Your task to perform on an android device: open a bookmark in the chrome app Image 0: 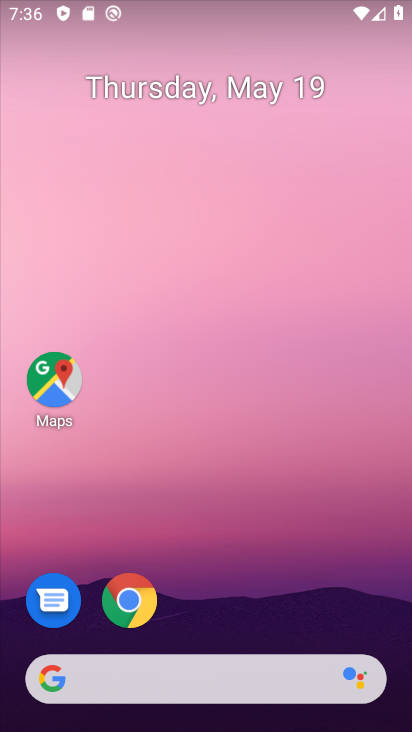
Step 0: click (140, 602)
Your task to perform on an android device: open a bookmark in the chrome app Image 1: 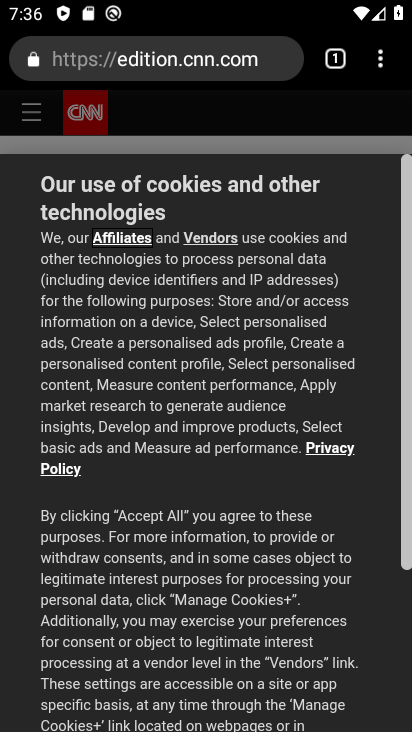
Step 1: click (381, 63)
Your task to perform on an android device: open a bookmark in the chrome app Image 2: 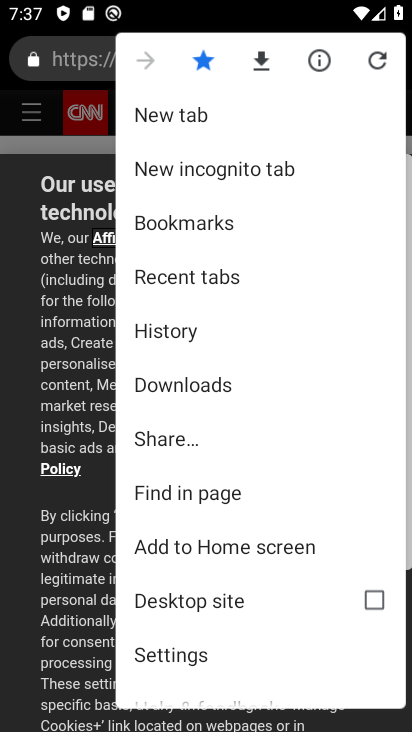
Step 2: click (161, 224)
Your task to perform on an android device: open a bookmark in the chrome app Image 3: 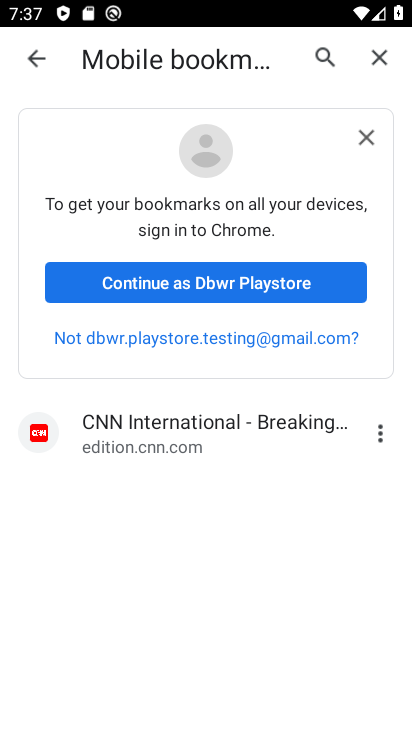
Step 3: click (176, 287)
Your task to perform on an android device: open a bookmark in the chrome app Image 4: 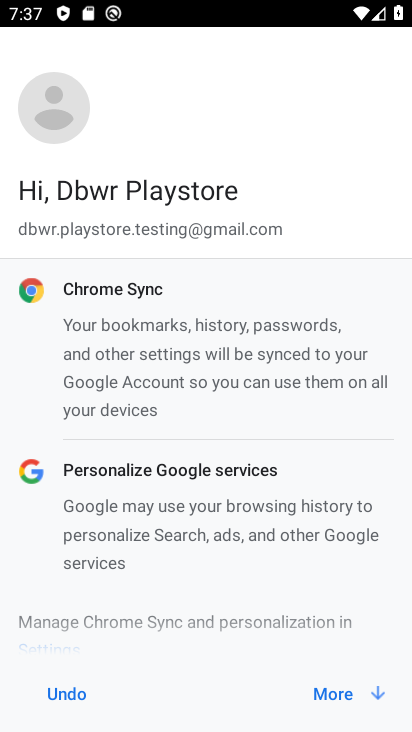
Step 4: click (324, 695)
Your task to perform on an android device: open a bookmark in the chrome app Image 5: 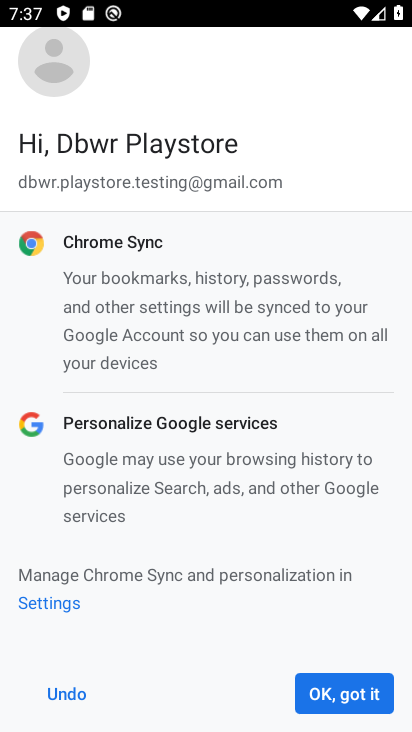
Step 5: click (324, 695)
Your task to perform on an android device: open a bookmark in the chrome app Image 6: 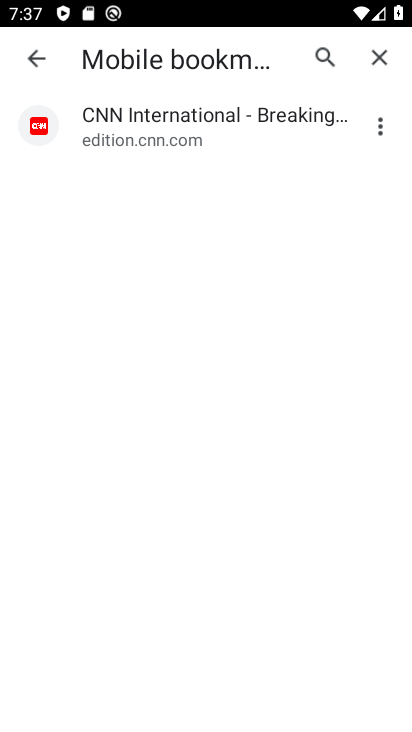
Step 6: click (130, 141)
Your task to perform on an android device: open a bookmark in the chrome app Image 7: 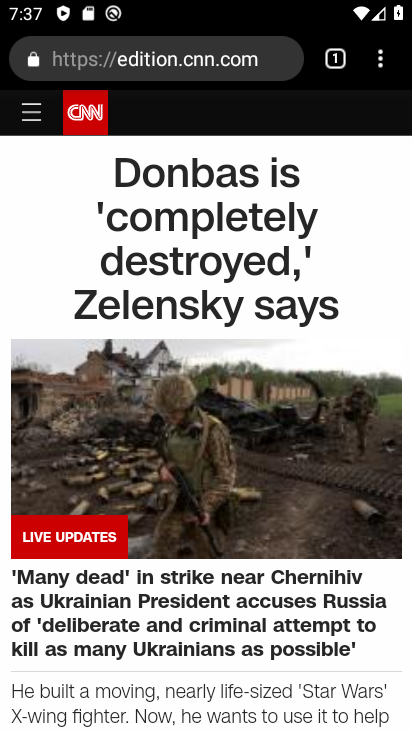
Step 7: task complete